Your task to perform on an android device: Open the map Image 0: 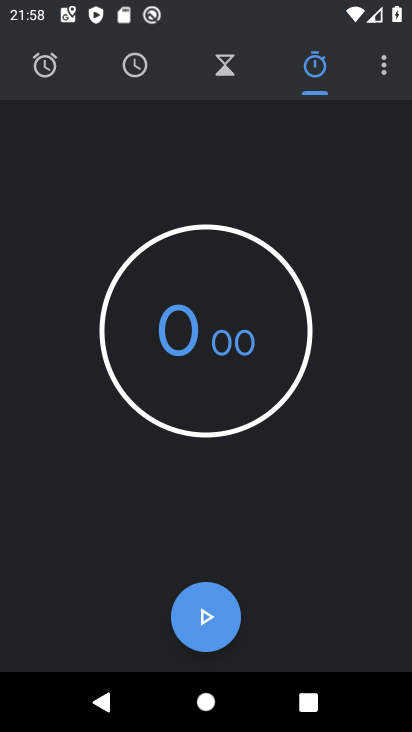
Step 0: press home button
Your task to perform on an android device: Open the map Image 1: 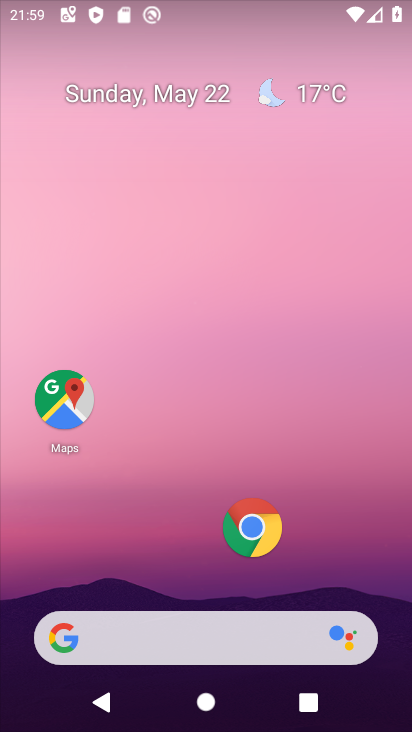
Step 1: click (55, 400)
Your task to perform on an android device: Open the map Image 2: 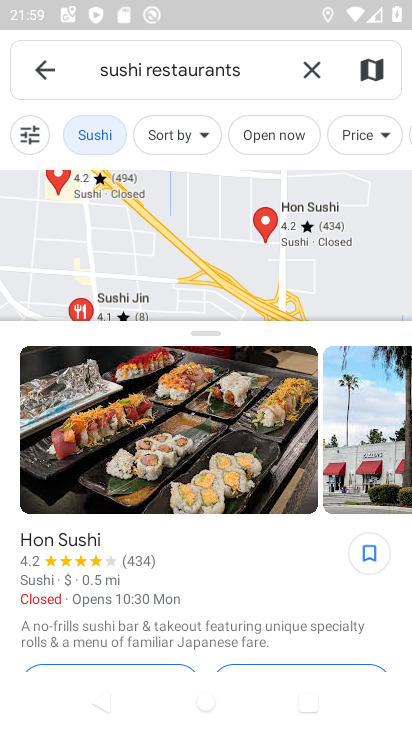
Step 2: click (311, 65)
Your task to perform on an android device: Open the map Image 3: 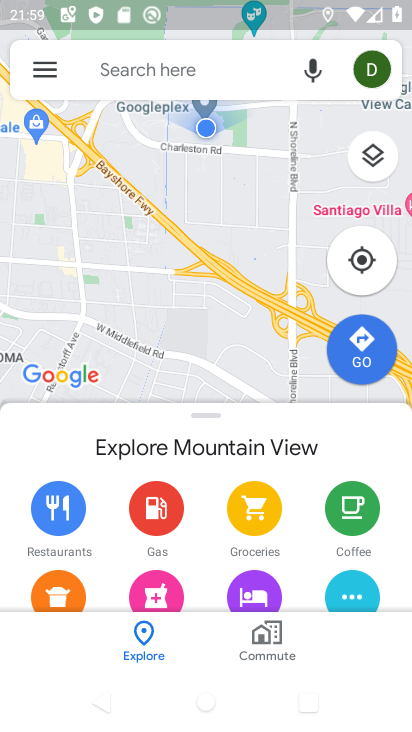
Step 3: task complete